Your task to perform on an android device: When is my next appointment? Image 0: 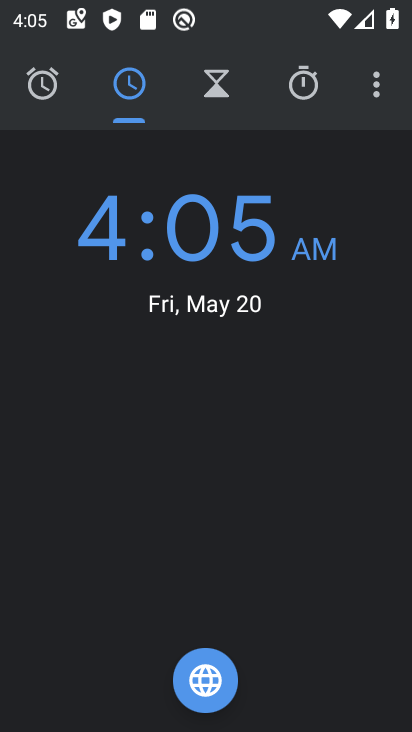
Step 0: press home button
Your task to perform on an android device: When is my next appointment? Image 1: 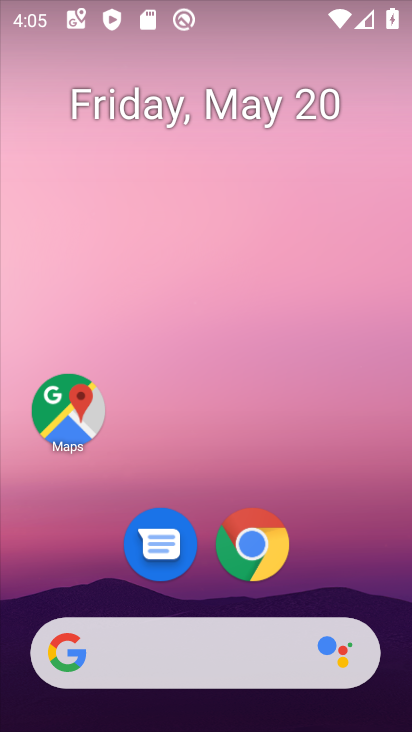
Step 1: drag from (321, 590) to (359, 7)
Your task to perform on an android device: When is my next appointment? Image 2: 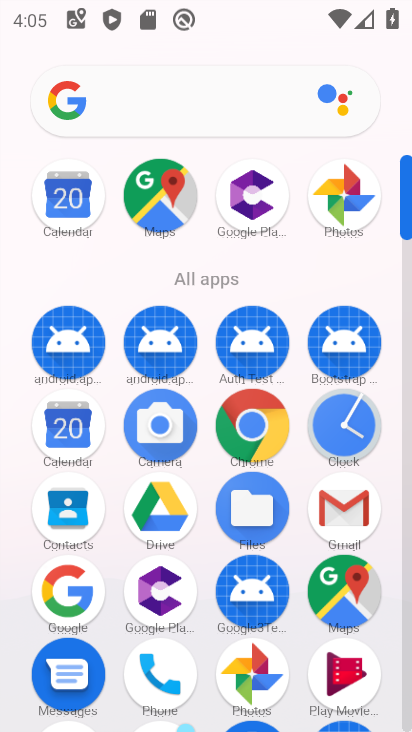
Step 2: click (73, 203)
Your task to perform on an android device: When is my next appointment? Image 3: 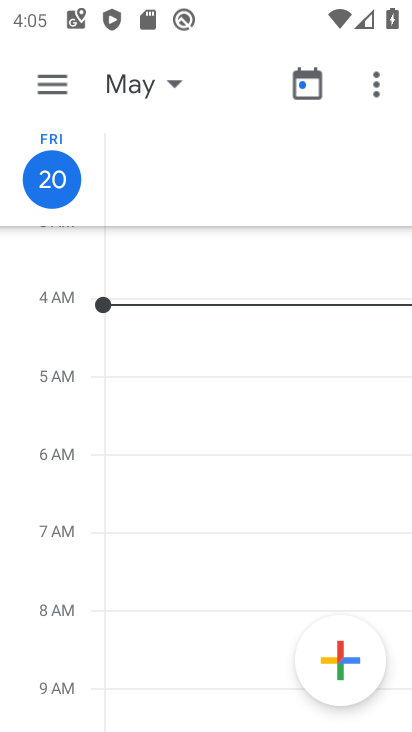
Step 3: click (61, 86)
Your task to perform on an android device: When is my next appointment? Image 4: 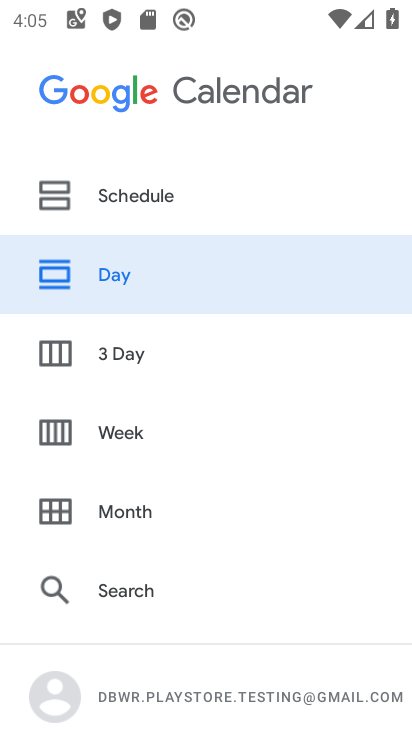
Step 4: click (145, 183)
Your task to perform on an android device: When is my next appointment? Image 5: 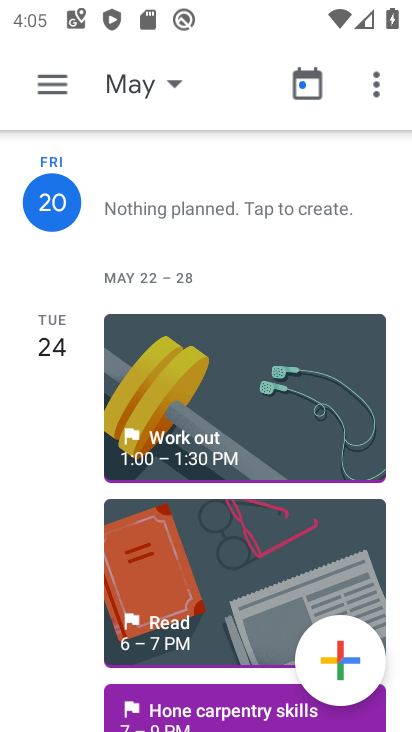
Step 5: drag from (224, 530) to (220, 292)
Your task to perform on an android device: When is my next appointment? Image 6: 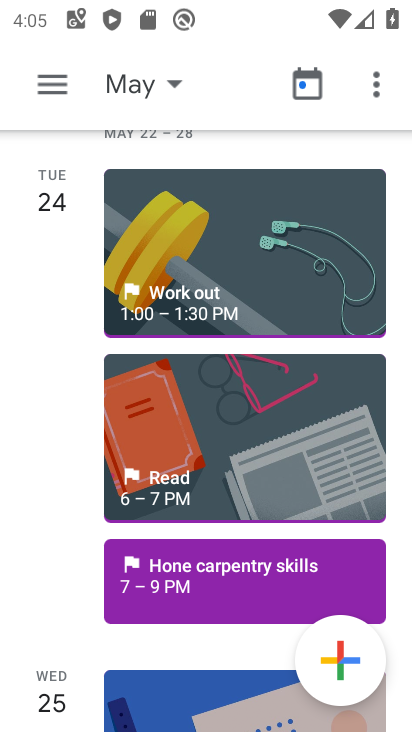
Step 6: click (190, 569)
Your task to perform on an android device: When is my next appointment? Image 7: 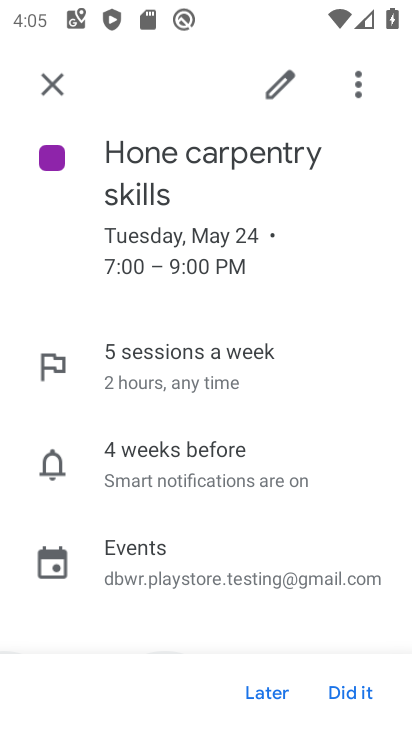
Step 7: task complete